Your task to perform on an android device: Turn off the flashlight Image 0: 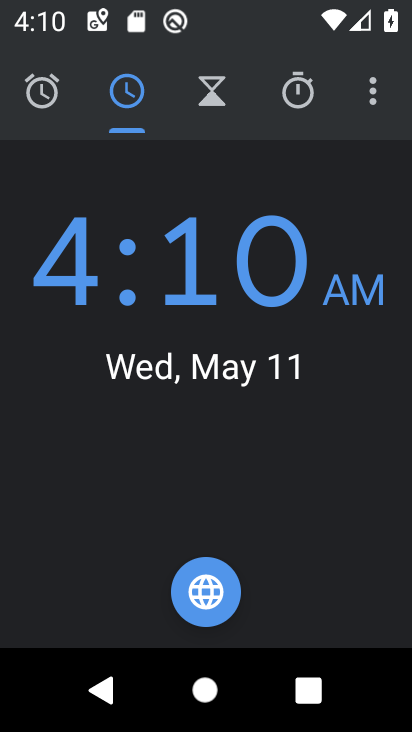
Step 0: press home button
Your task to perform on an android device: Turn off the flashlight Image 1: 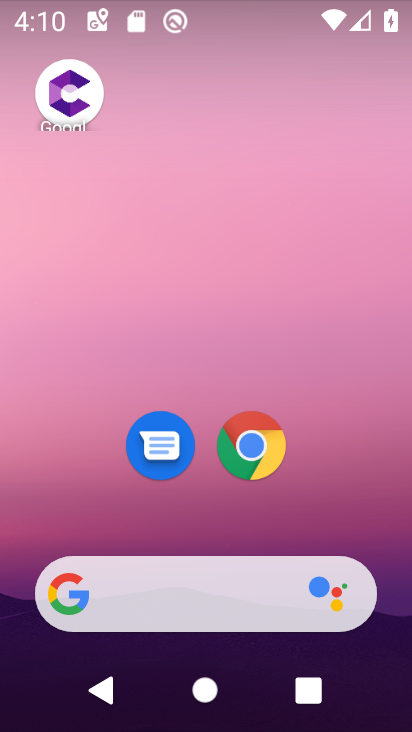
Step 1: drag from (229, 529) to (234, 173)
Your task to perform on an android device: Turn off the flashlight Image 2: 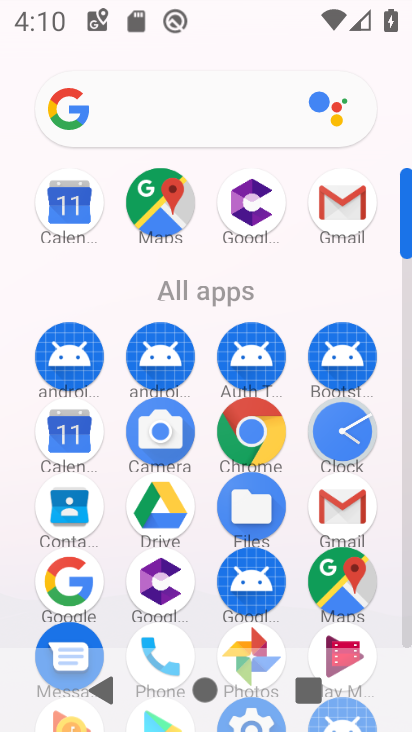
Step 2: drag from (220, 495) to (222, 307)
Your task to perform on an android device: Turn off the flashlight Image 3: 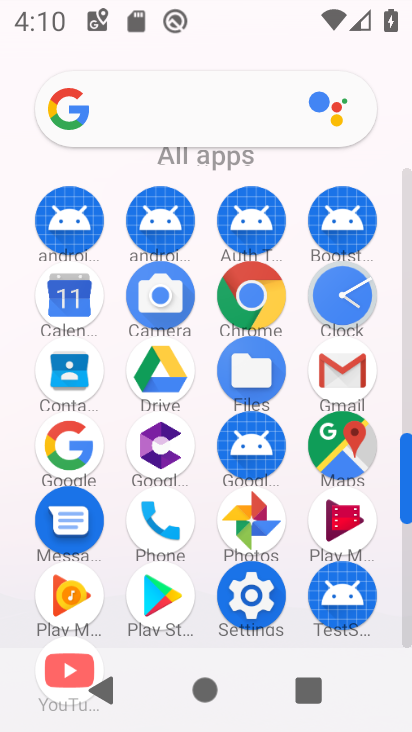
Step 3: click (242, 587)
Your task to perform on an android device: Turn off the flashlight Image 4: 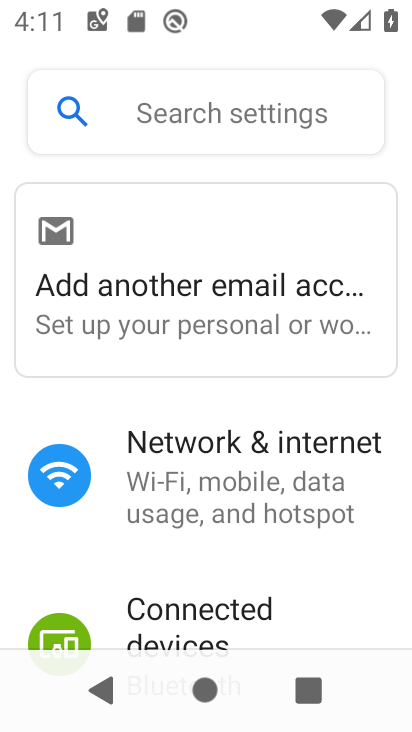
Step 4: click (224, 101)
Your task to perform on an android device: Turn off the flashlight Image 5: 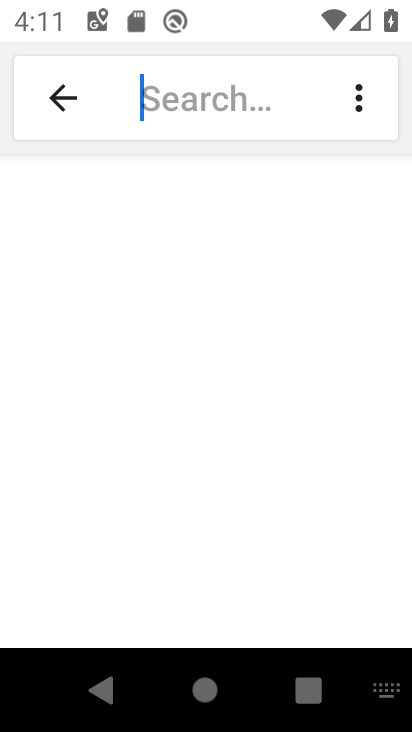
Step 5: type "flashlight"
Your task to perform on an android device: Turn off the flashlight Image 6: 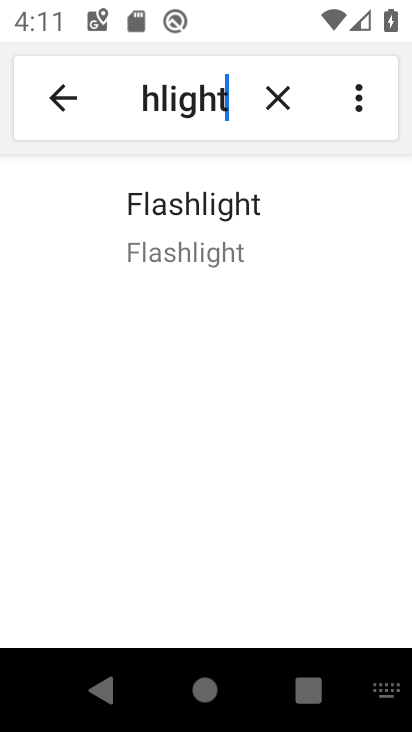
Step 6: click (216, 223)
Your task to perform on an android device: Turn off the flashlight Image 7: 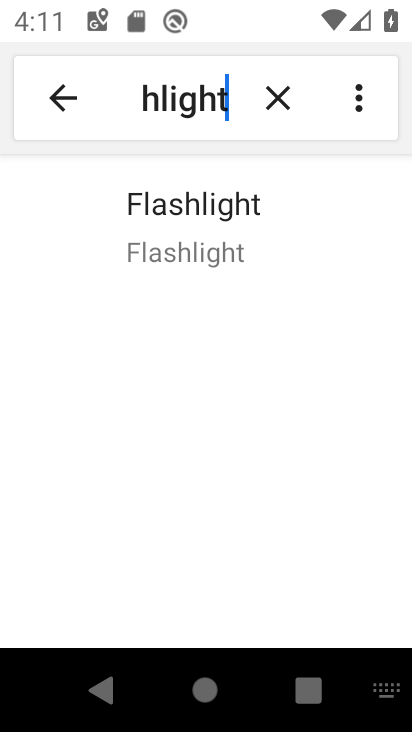
Step 7: click (217, 222)
Your task to perform on an android device: Turn off the flashlight Image 8: 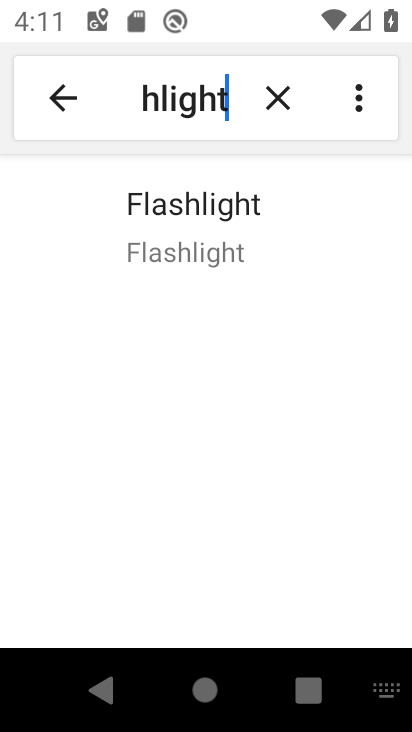
Step 8: click (213, 222)
Your task to perform on an android device: Turn off the flashlight Image 9: 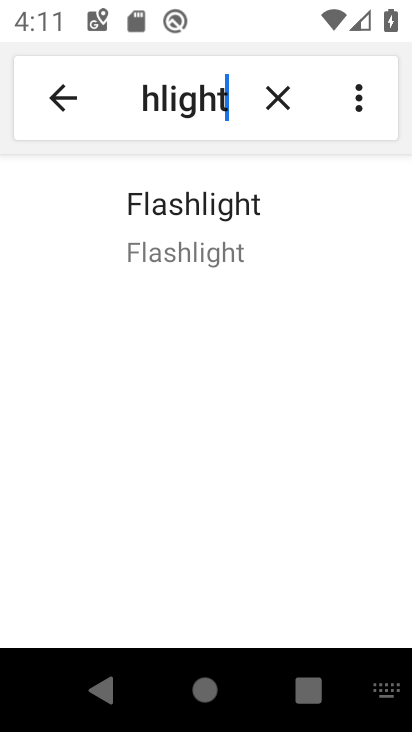
Step 9: task complete